Your task to perform on an android device: add a contact Image 0: 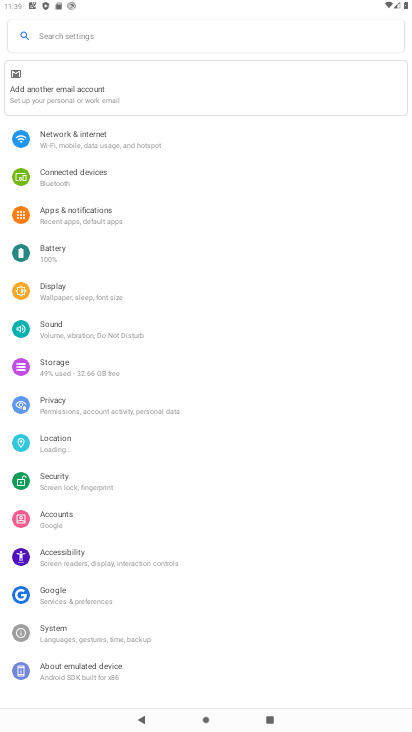
Step 0: press home button
Your task to perform on an android device: add a contact Image 1: 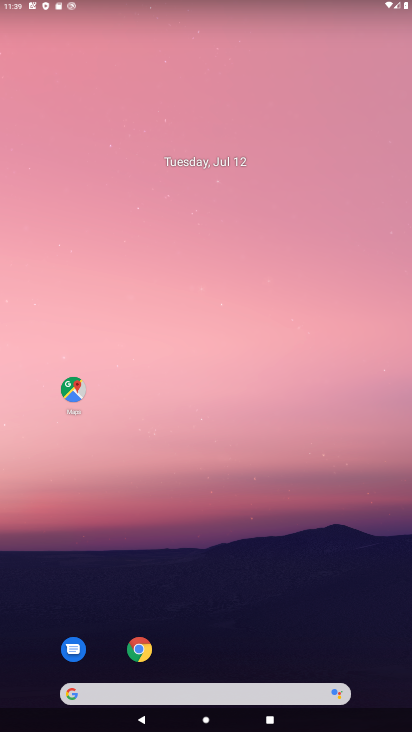
Step 1: drag from (307, 574) to (385, 29)
Your task to perform on an android device: add a contact Image 2: 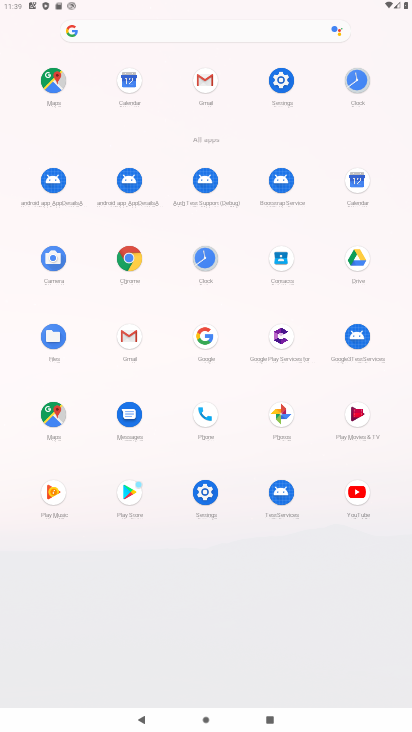
Step 2: click (286, 269)
Your task to perform on an android device: add a contact Image 3: 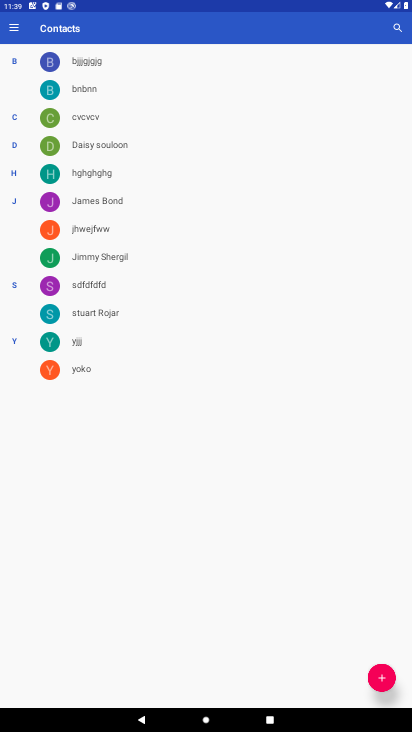
Step 3: click (382, 684)
Your task to perform on an android device: add a contact Image 4: 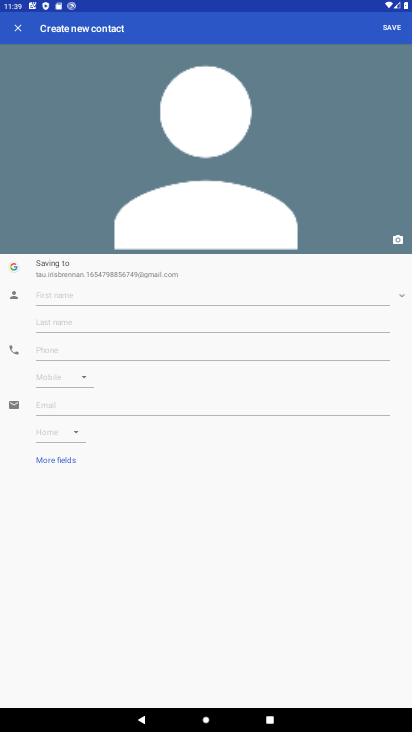
Step 4: click (42, 299)
Your task to perform on an android device: add a contact Image 5: 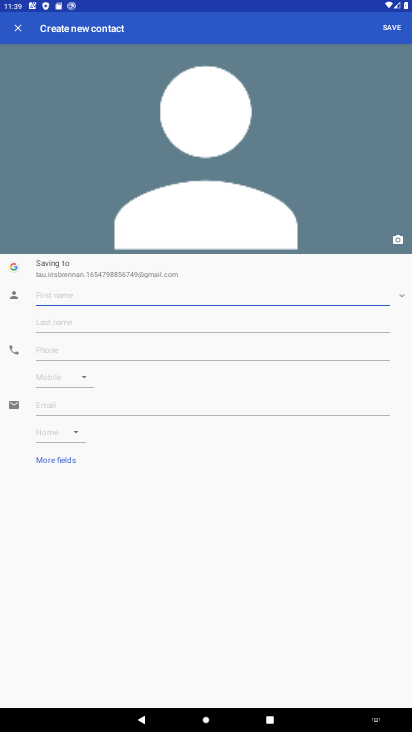
Step 5: type "tvhgf"
Your task to perform on an android device: add a contact Image 6: 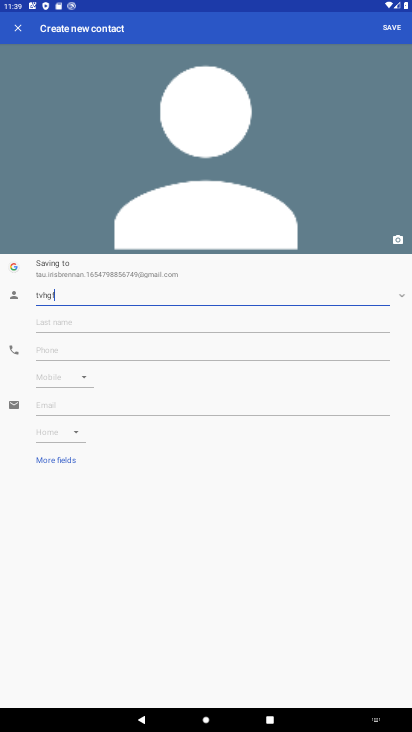
Step 6: click (61, 347)
Your task to perform on an android device: add a contact Image 7: 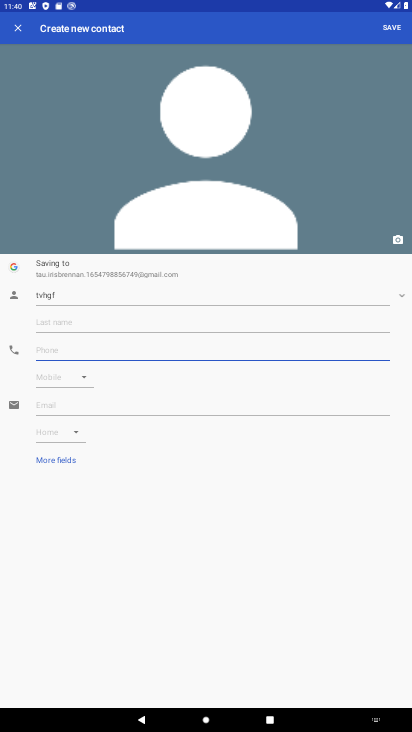
Step 7: type "5678904321"
Your task to perform on an android device: add a contact Image 8: 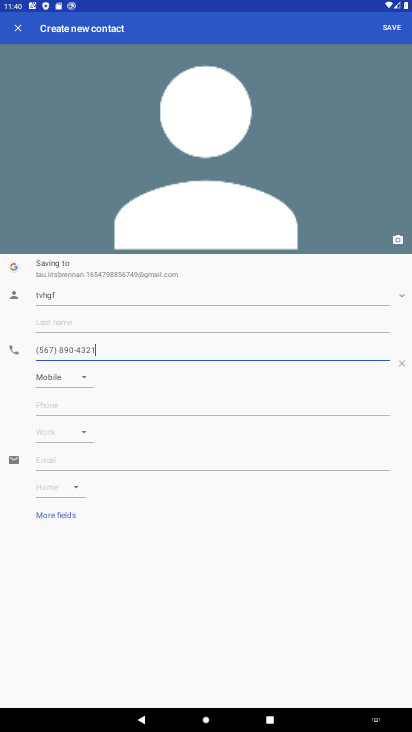
Step 8: click (391, 28)
Your task to perform on an android device: add a contact Image 9: 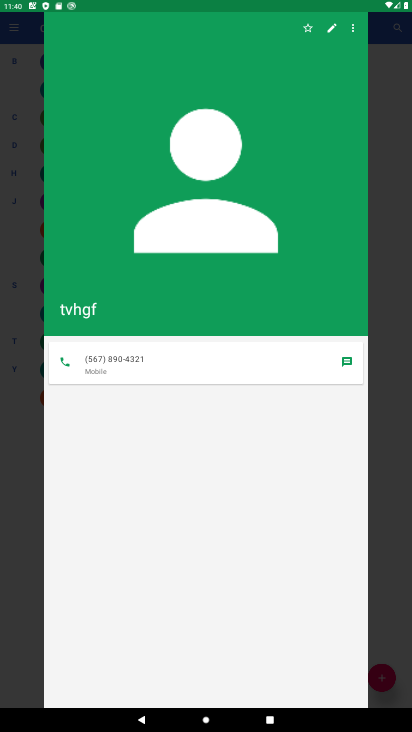
Step 9: task complete